Your task to perform on an android device: star an email in the gmail app Image 0: 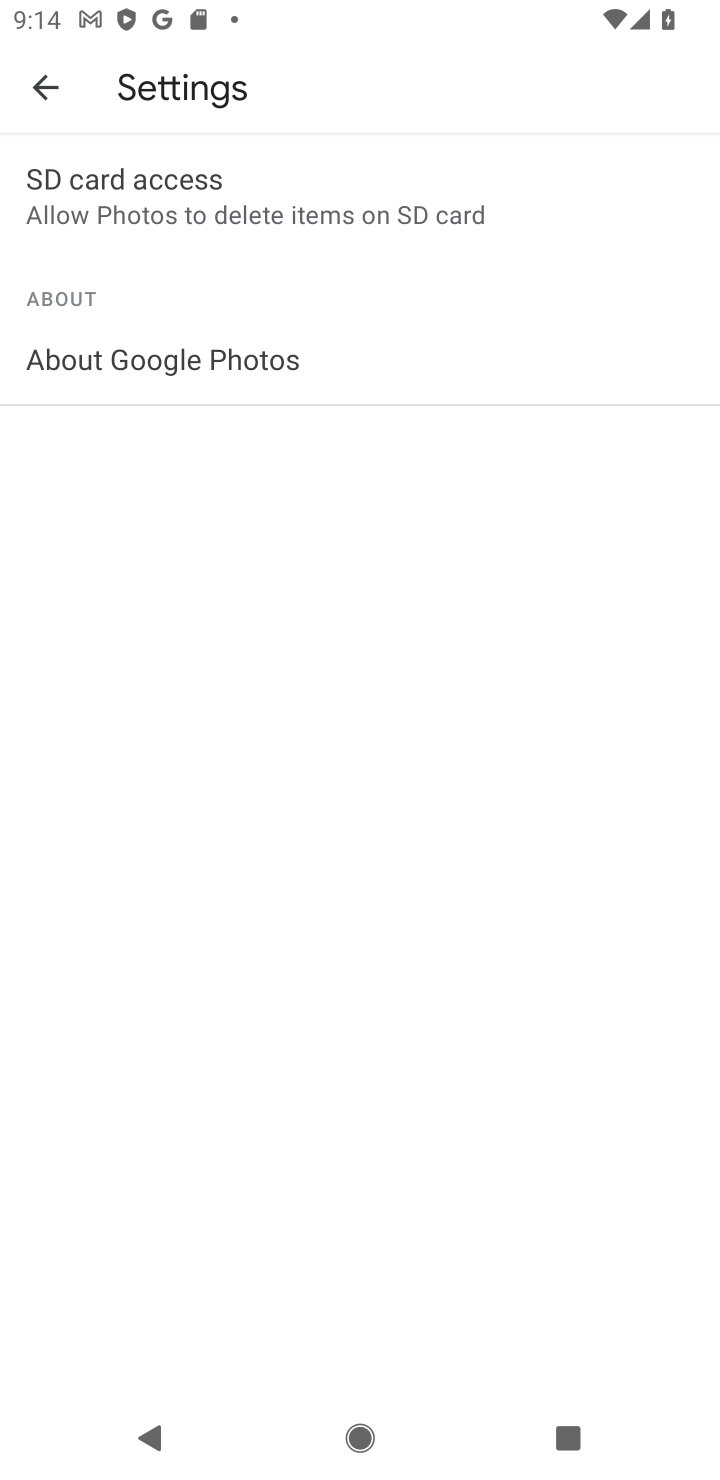
Step 0: press home button
Your task to perform on an android device: star an email in the gmail app Image 1: 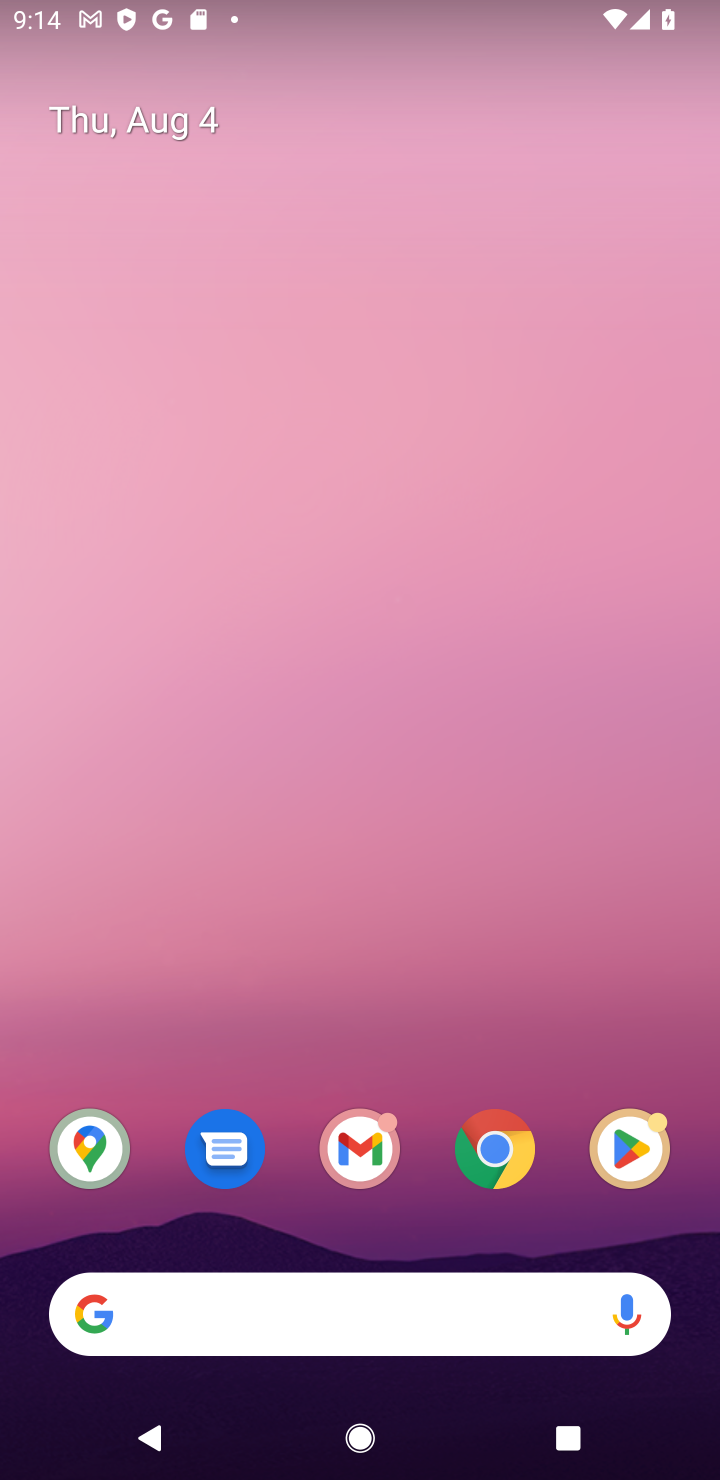
Step 1: click (363, 1145)
Your task to perform on an android device: star an email in the gmail app Image 2: 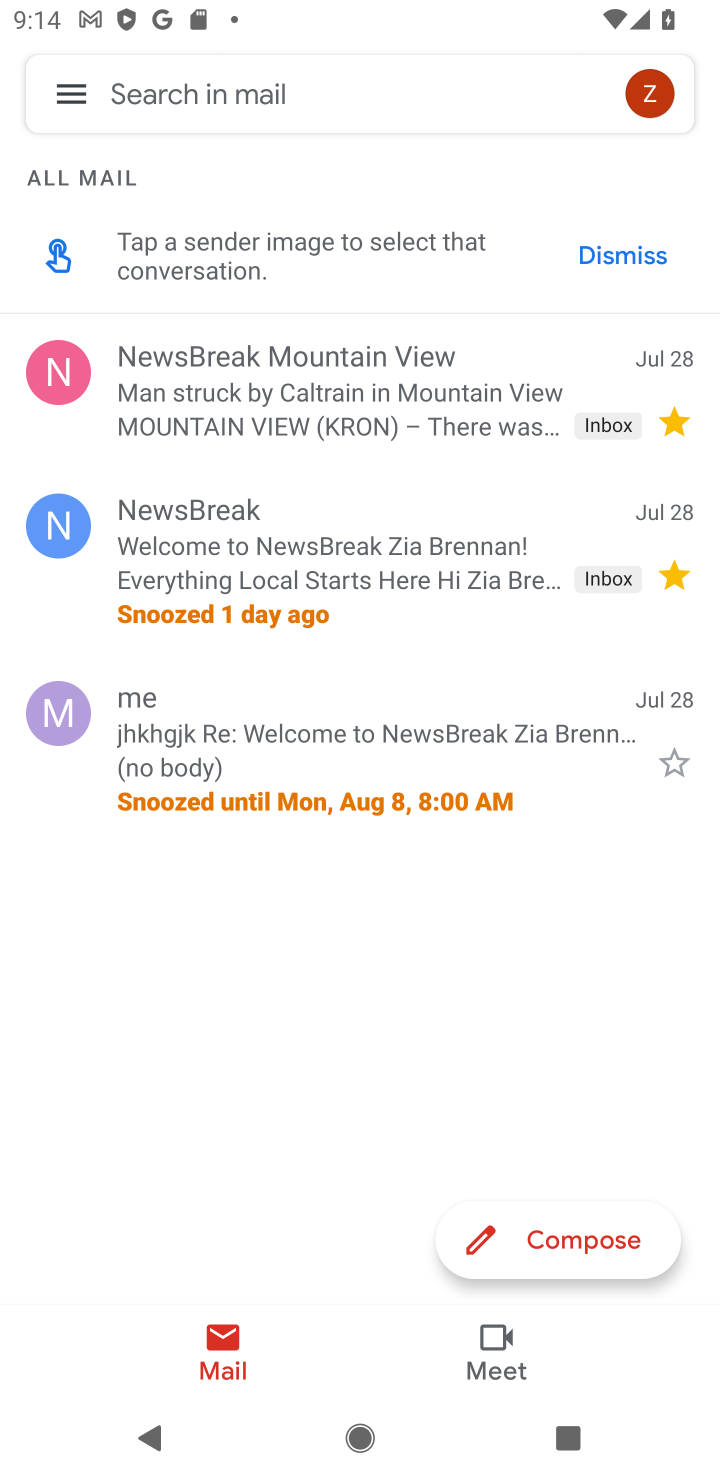
Step 2: click (677, 757)
Your task to perform on an android device: star an email in the gmail app Image 3: 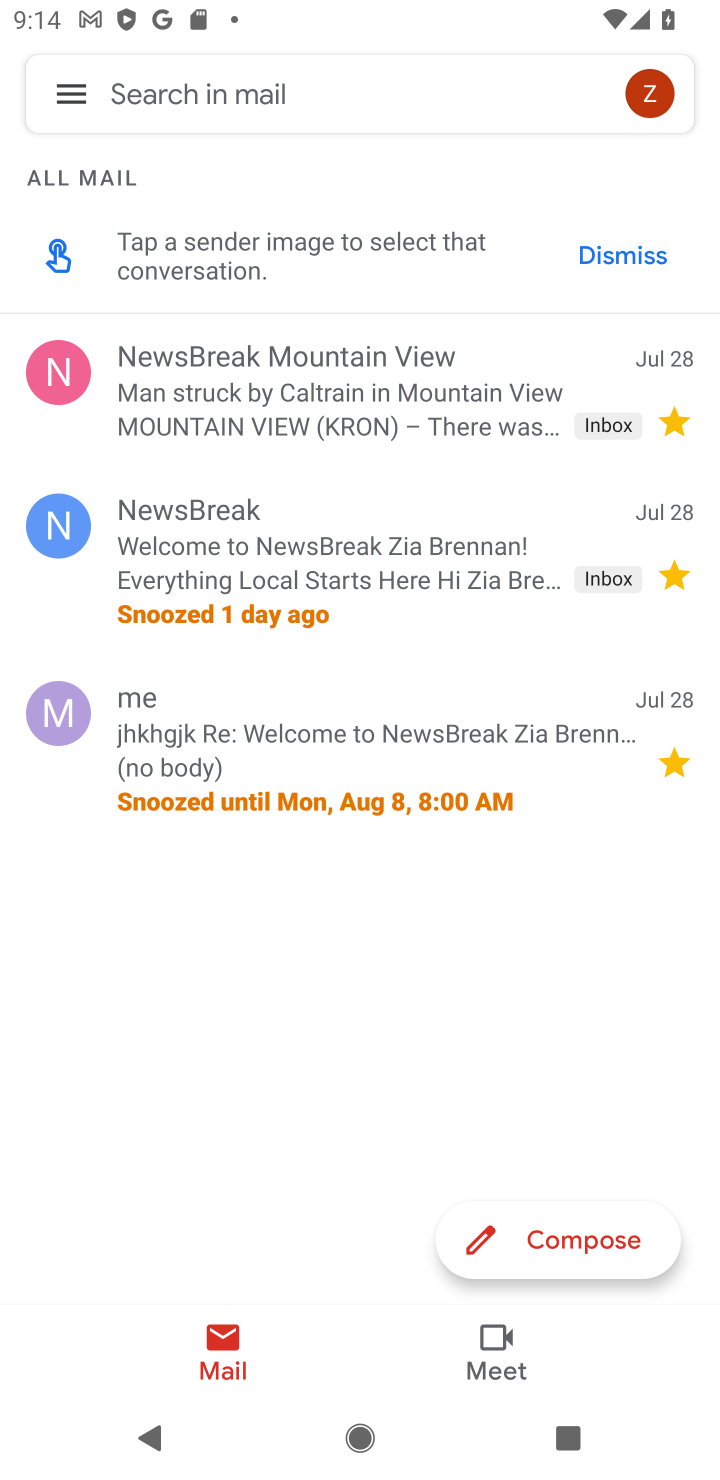
Step 3: task complete